Your task to perform on an android device: turn off data saver in the chrome app Image 0: 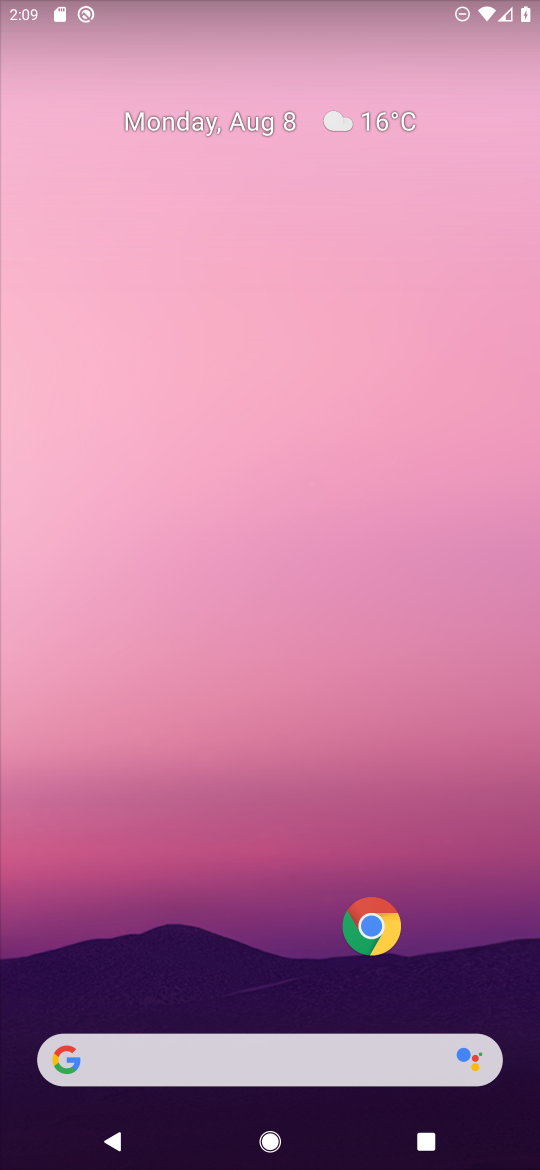
Step 0: drag from (311, 969) to (539, 425)
Your task to perform on an android device: turn off data saver in the chrome app Image 1: 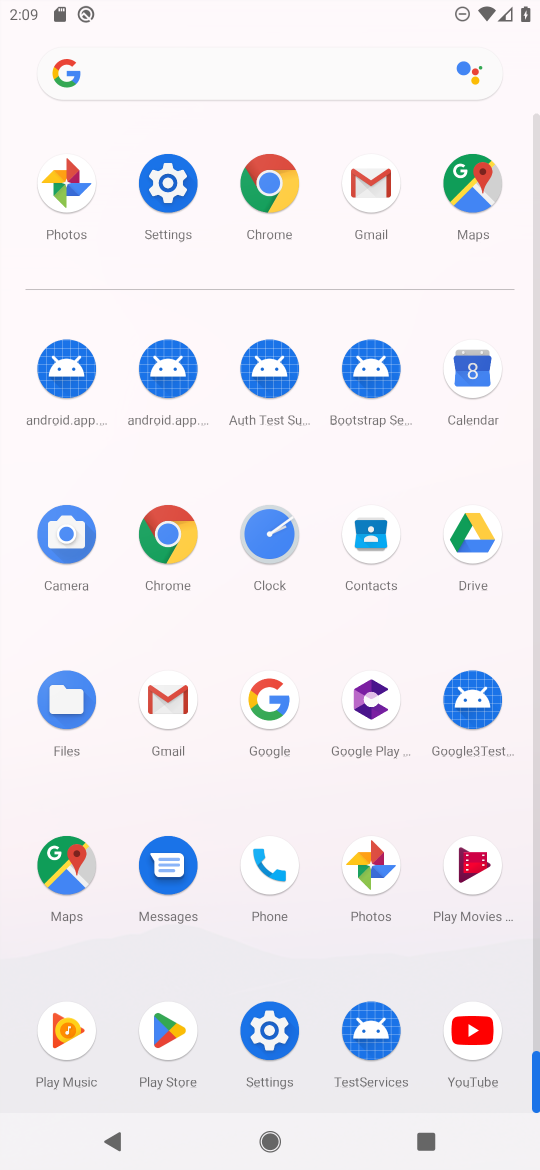
Step 1: click (255, 172)
Your task to perform on an android device: turn off data saver in the chrome app Image 2: 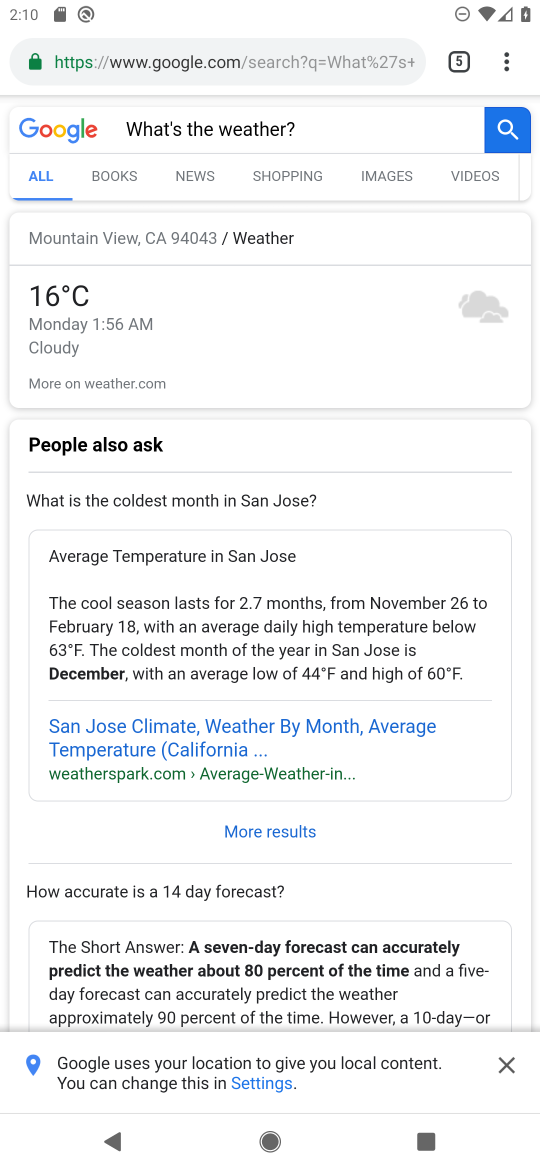
Step 2: click (504, 58)
Your task to perform on an android device: turn off data saver in the chrome app Image 3: 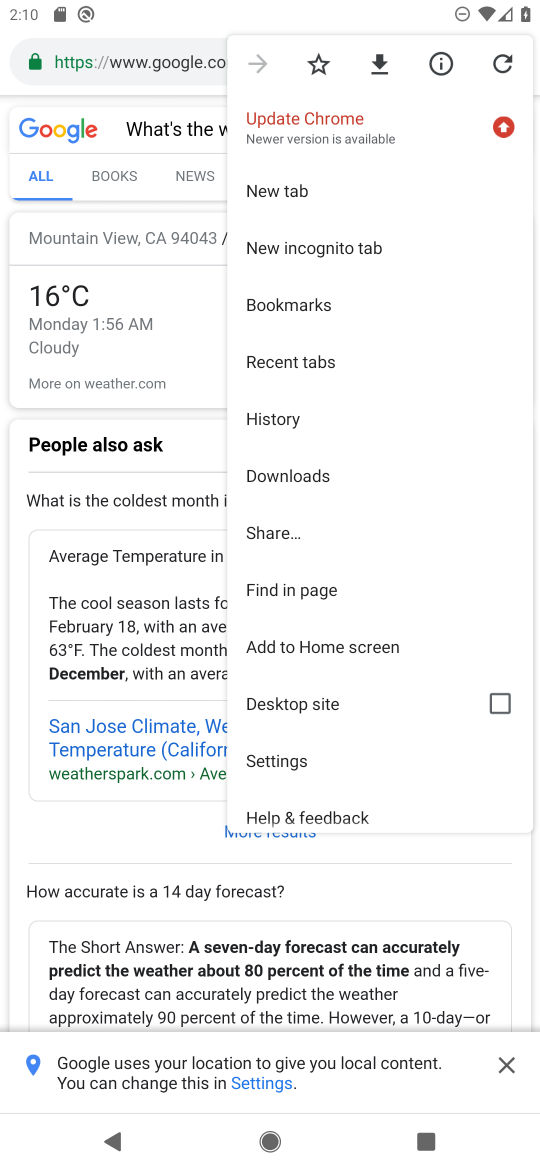
Step 3: click (292, 757)
Your task to perform on an android device: turn off data saver in the chrome app Image 4: 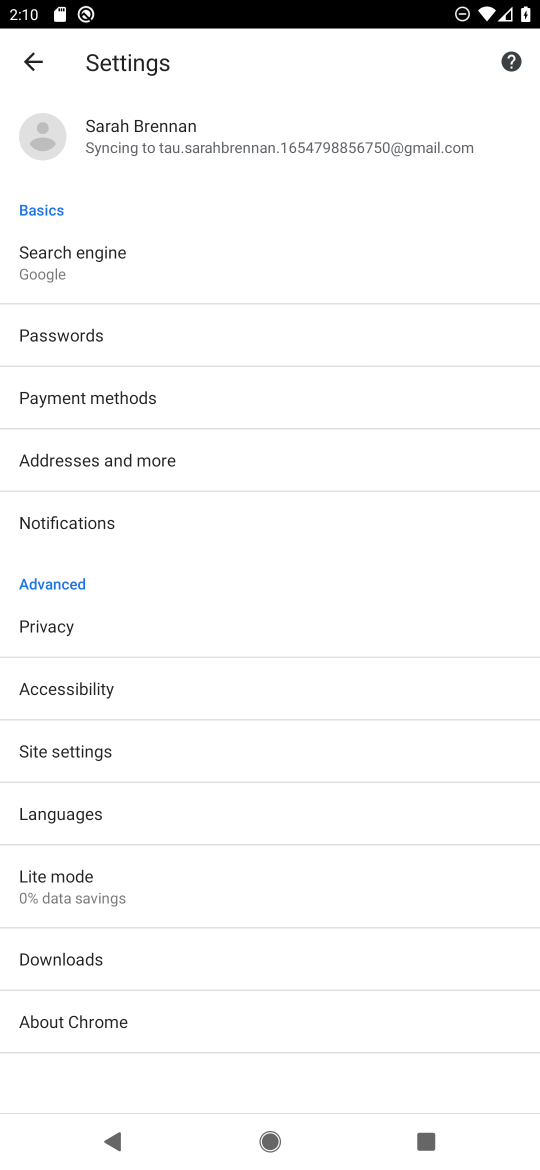
Step 4: click (139, 862)
Your task to perform on an android device: turn off data saver in the chrome app Image 5: 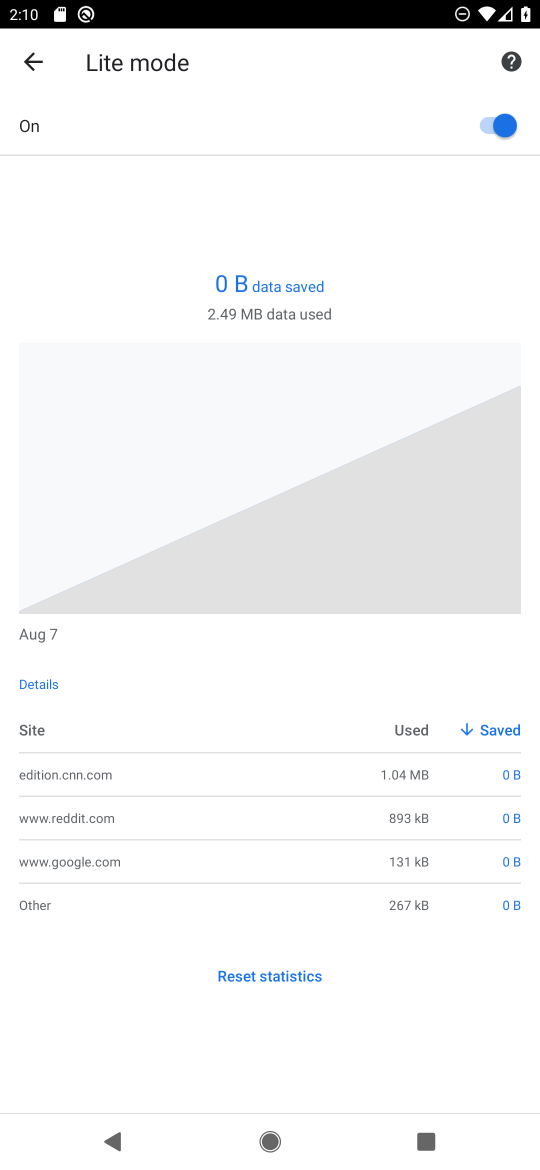
Step 5: click (493, 102)
Your task to perform on an android device: turn off data saver in the chrome app Image 6: 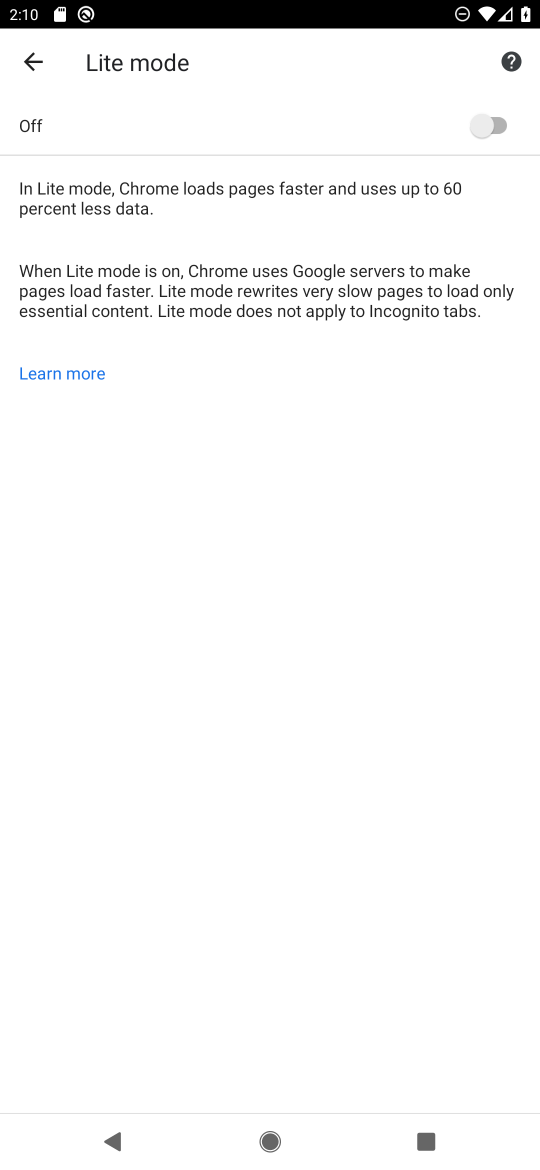
Step 6: task complete